Your task to perform on an android device: change keyboard looks Image 0: 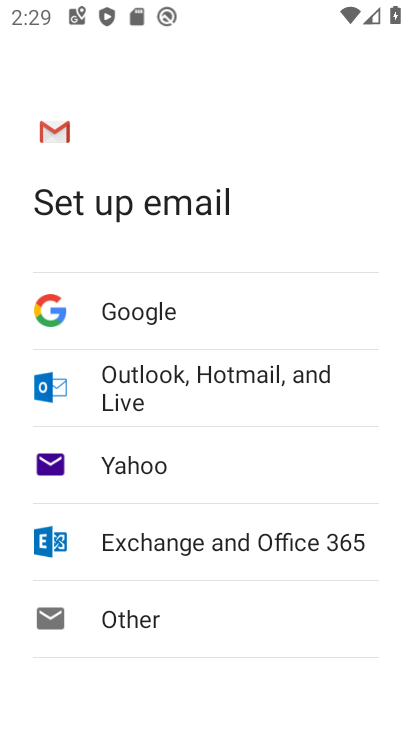
Step 0: press home button
Your task to perform on an android device: change keyboard looks Image 1: 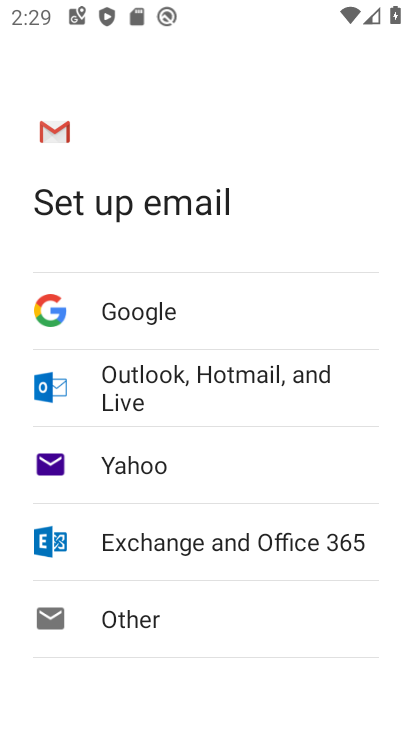
Step 1: drag from (132, 558) to (323, 28)
Your task to perform on an android device: change keyboard looks Image 2: 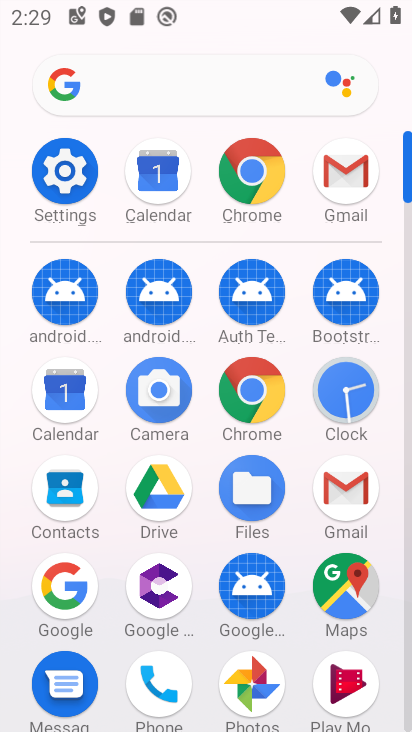
Step 2: click (70, 173)
Your task to perform on an android device: change keyboard looks Image 3: 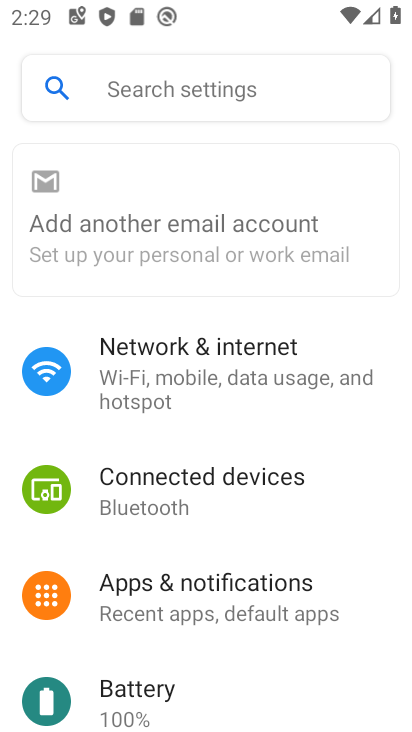
Step 3: drag from (191, 615) to (287, 56)
Your task to perform on an android device: change keyboard looks Image 4: 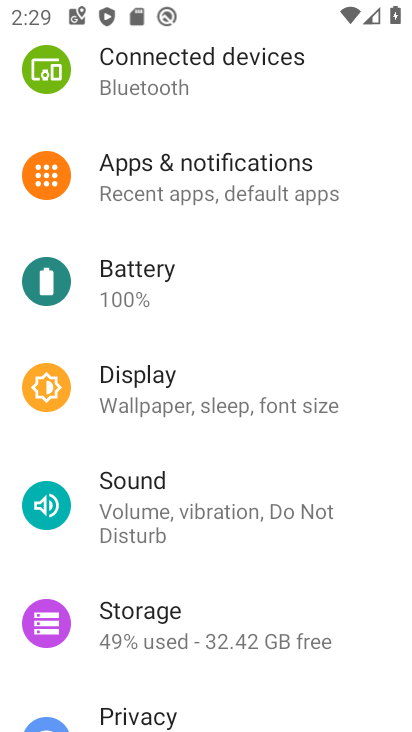
Step 4: drag from (220, 578) to (275, 122)
Your task to perform on an android device: change keyboard looks Image 5: 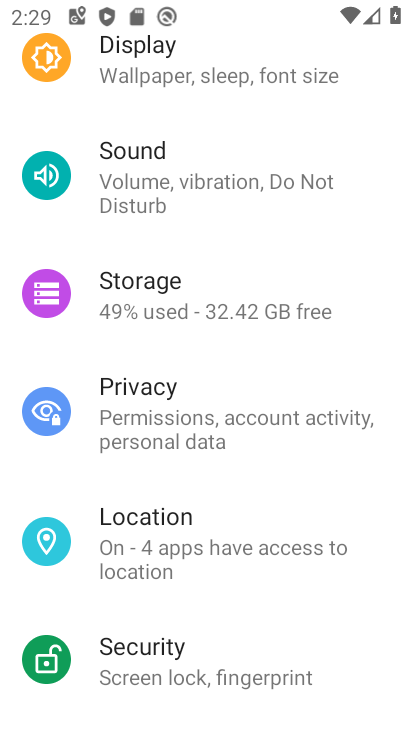
Step 5: drag from (191, 532) to (292, 190)
Your task to perform on an android device: change keyboard looks Image 6: 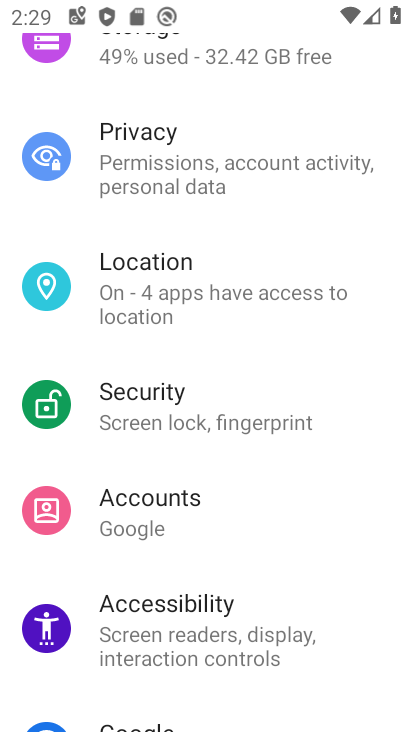
Step 6: drag from (185, 556) to (287, 139)
Your task to perform on an android device: change keyboard looks Image 7: 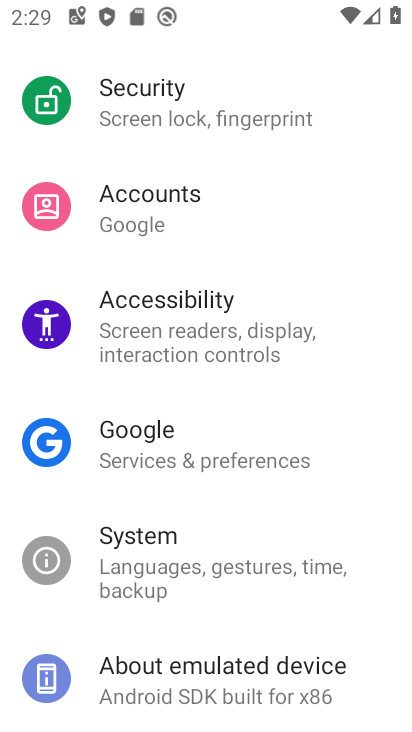
Step 7: click (164, 562)
Your task to perform on an android device: change keyboard looks Image 8: 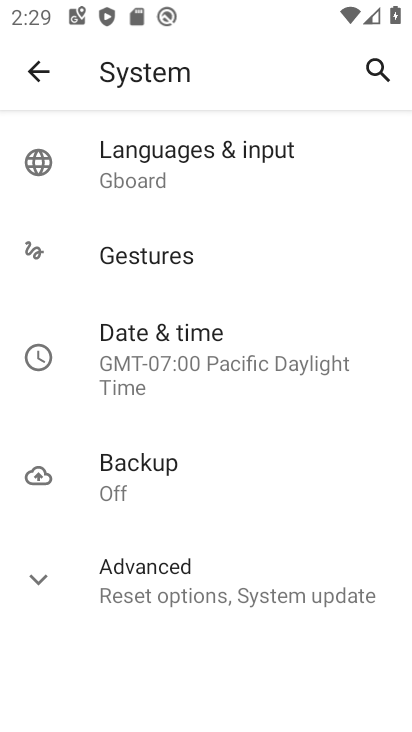
Step 8: drag from (202, 435) to (311, 122)
Your task to perform on an android device: change keyboard looks Image 9: 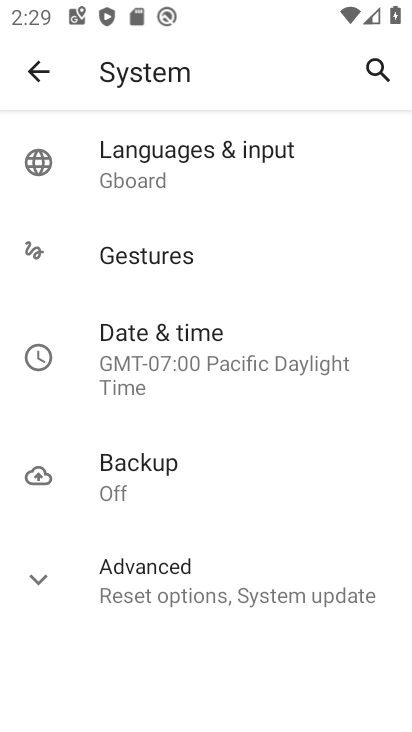
Step 9: click (236, 169)
Your task to perform on an android device: change keyboard looks Image 10: 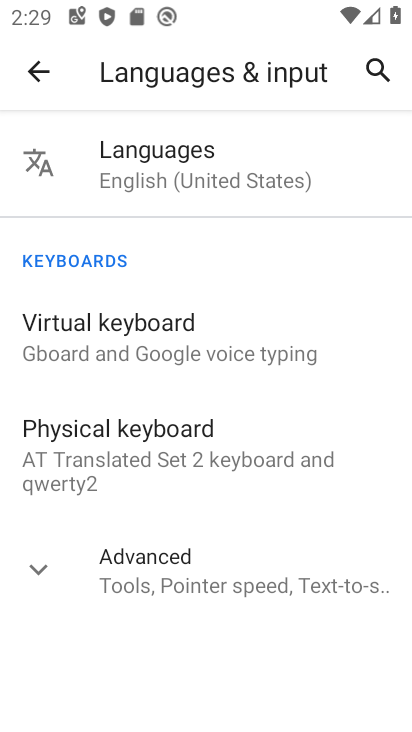
Step 10: click (144, 343)
Your task to perform on an android device: change keyboard looks Image 11: 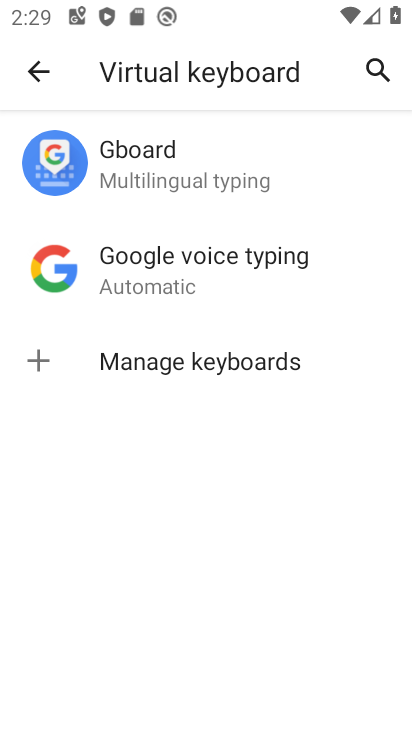
Step 11: click (221, 175)
Your task to perform on an android device: change keyboard looks Image 12: 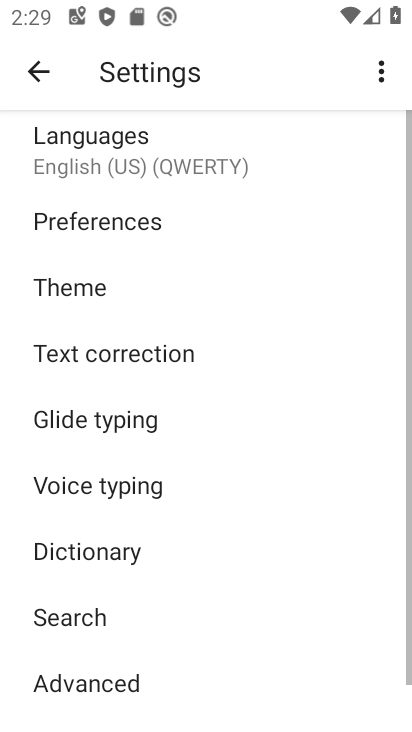
Step 12: click (98, 294)
Your task to perform on an android device: change keyboard looks Image 13: 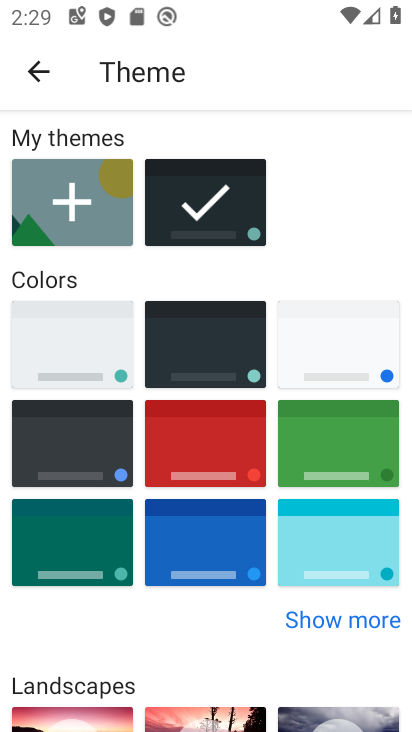
Step 13: drag from (226, 618) to (294, 186)
Your task to perform on an android device: change keyboard looks Image 14: 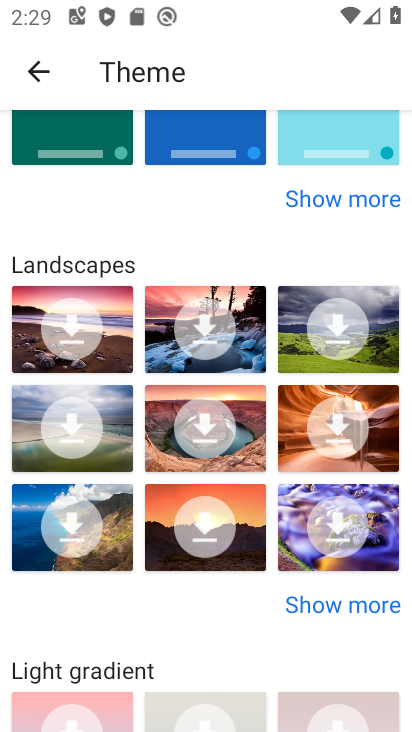
Step 14: drag from (200, 323) to (242, 728)
Your task to perform on an android device: change keyboard looks Image 15: 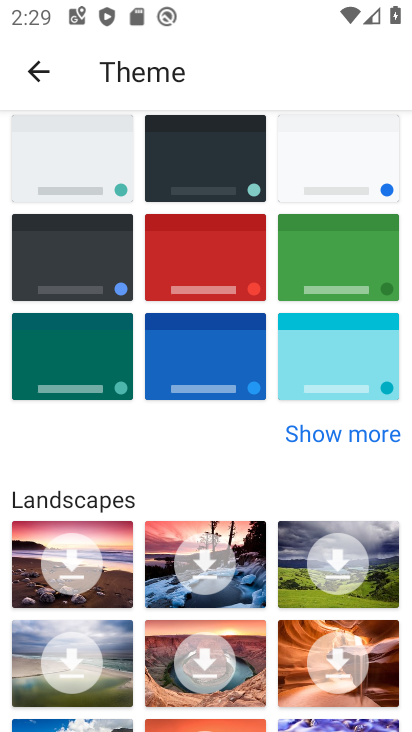
Step 15: click (205, 256)
Your task to perform on an android device: change keyboard looks Image 16: 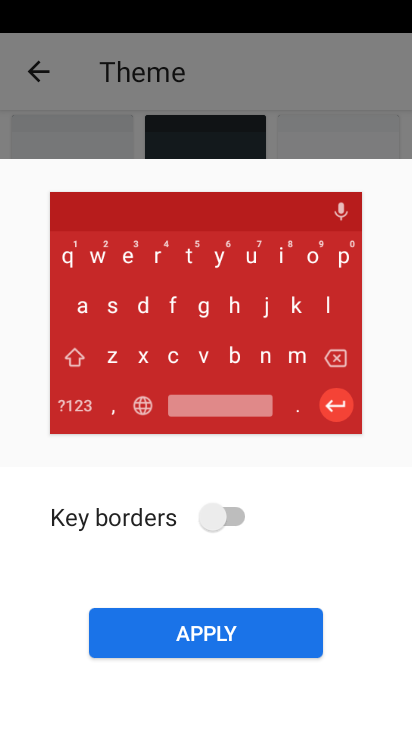
Step 16: click (216, 648)
Your task to perform on an android device: change keyboard looks Image 17: 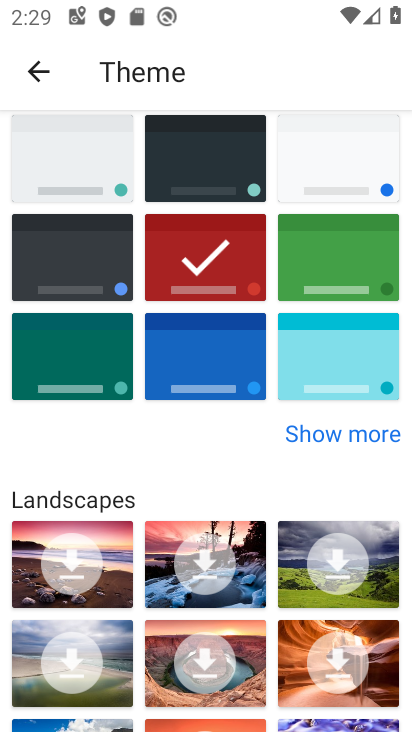
Step 17: task complete